Your task to perform on an android device: Show me recent news Image 0: 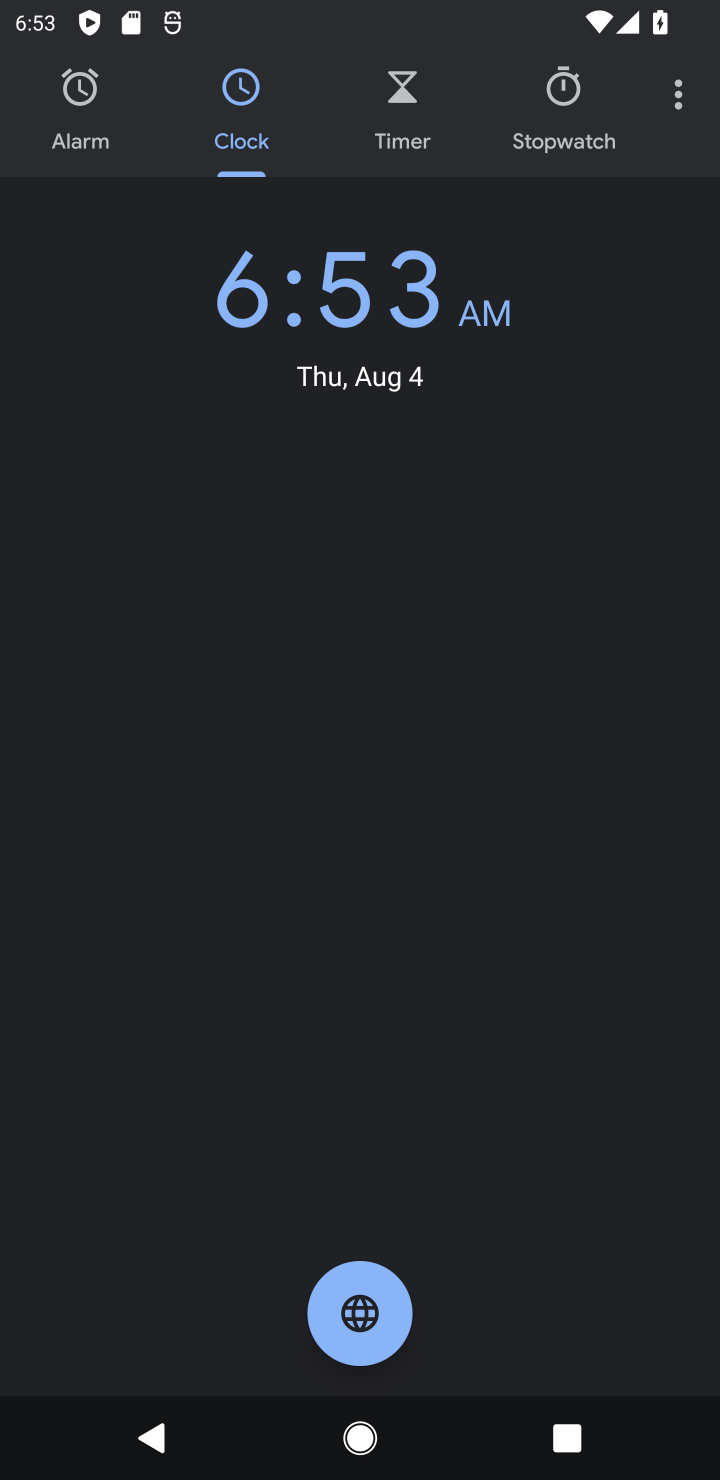
Step 0: press home button
Your task to perform on an android device: Show me recent news Image 1: 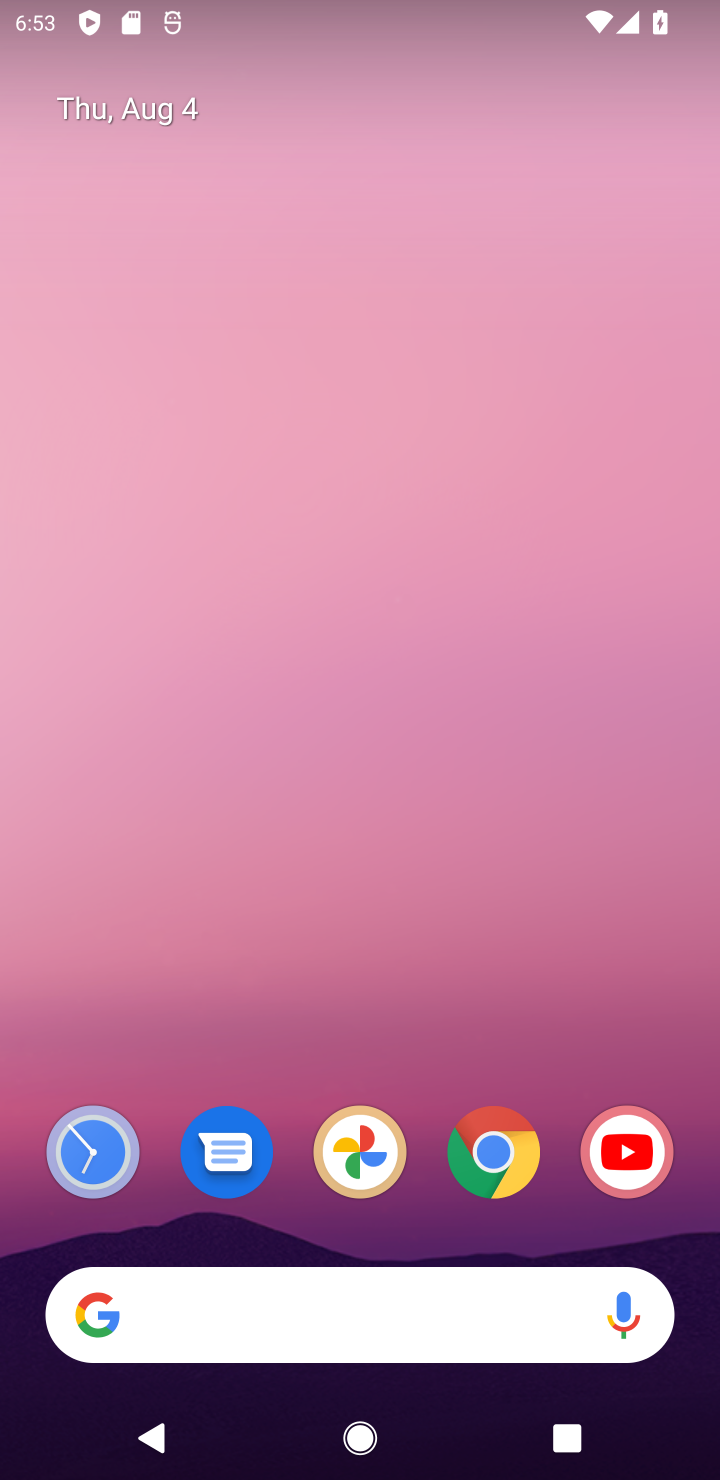
Step 1: click (184, 1304)
Your task to perform on an android device: Show me recent news Image 2: 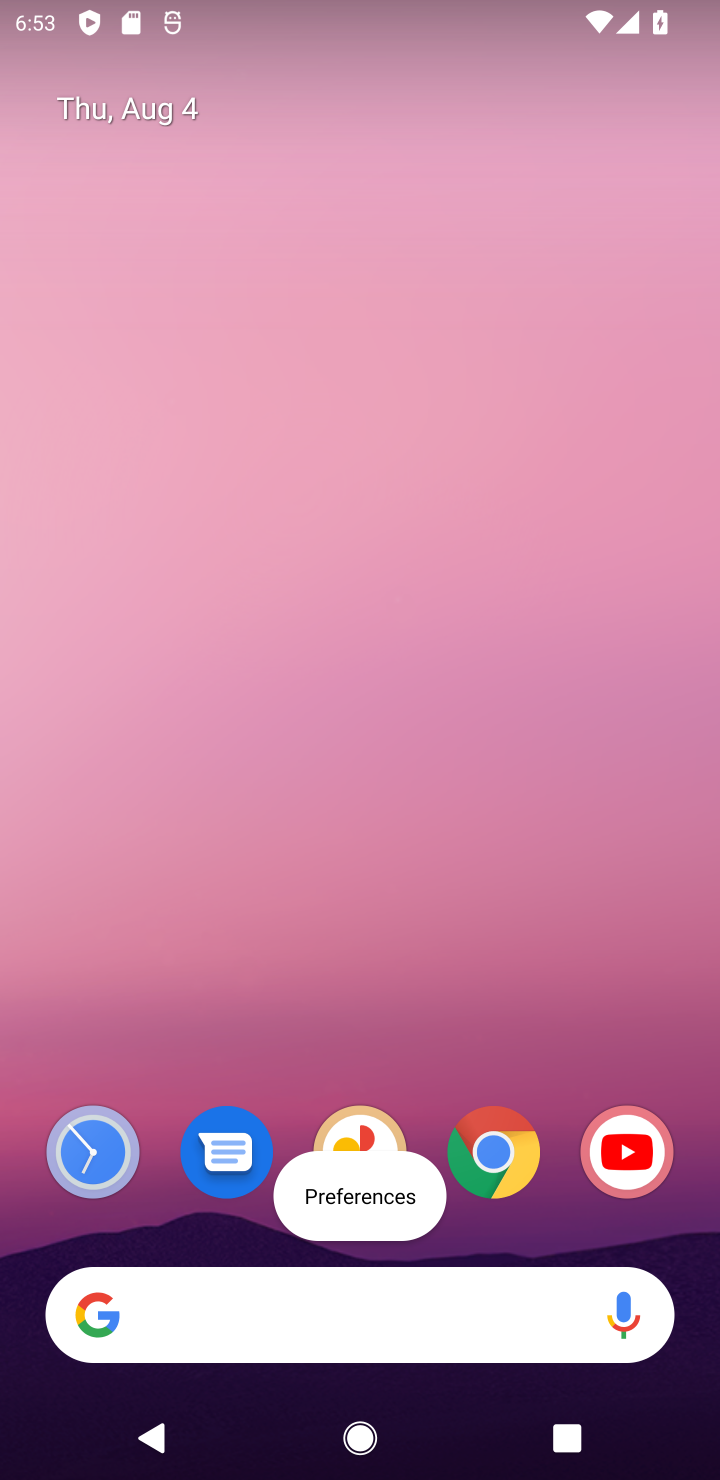
Step 2: click (431, 1324)
Your task to perform on an android device: Show me recent news Image 3: 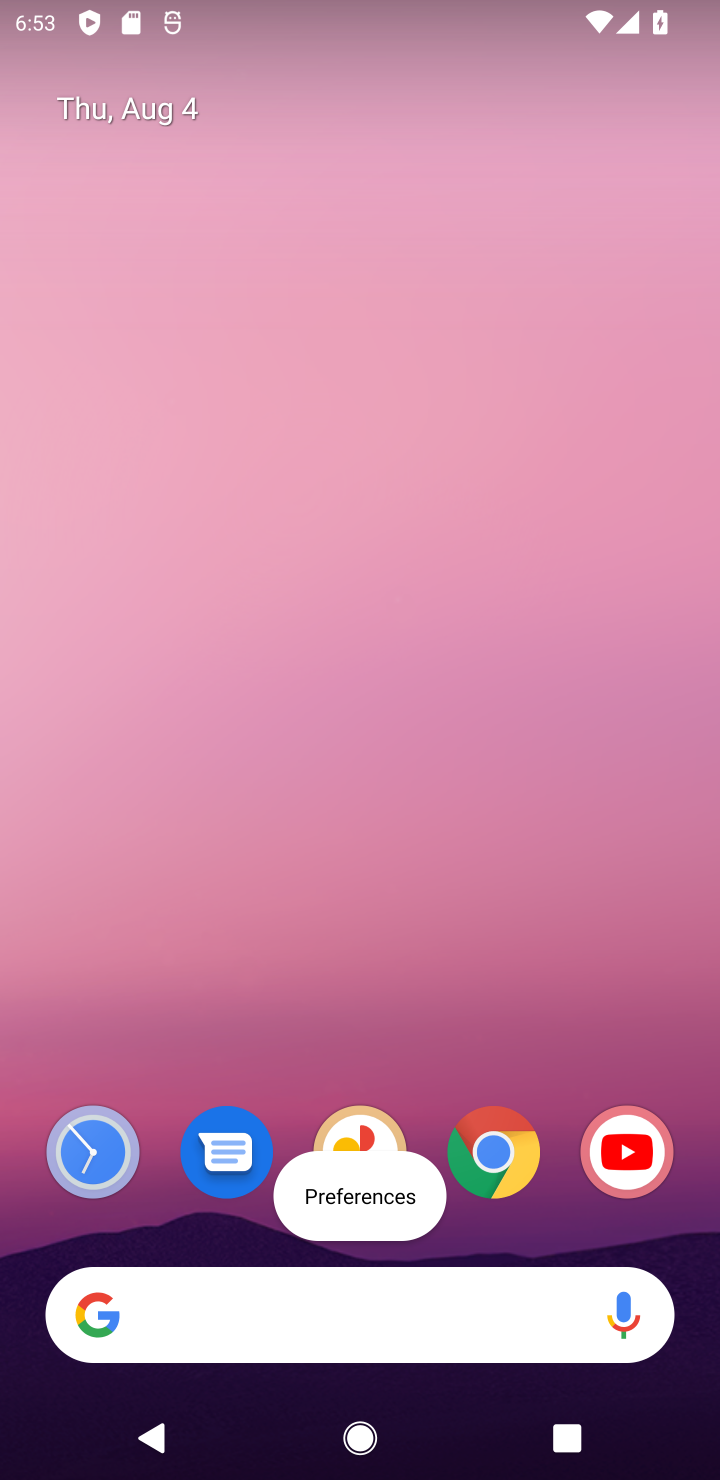
Step 3: click (222, 1306)
Your task to perform on an android device: Show me recent news Image 4: 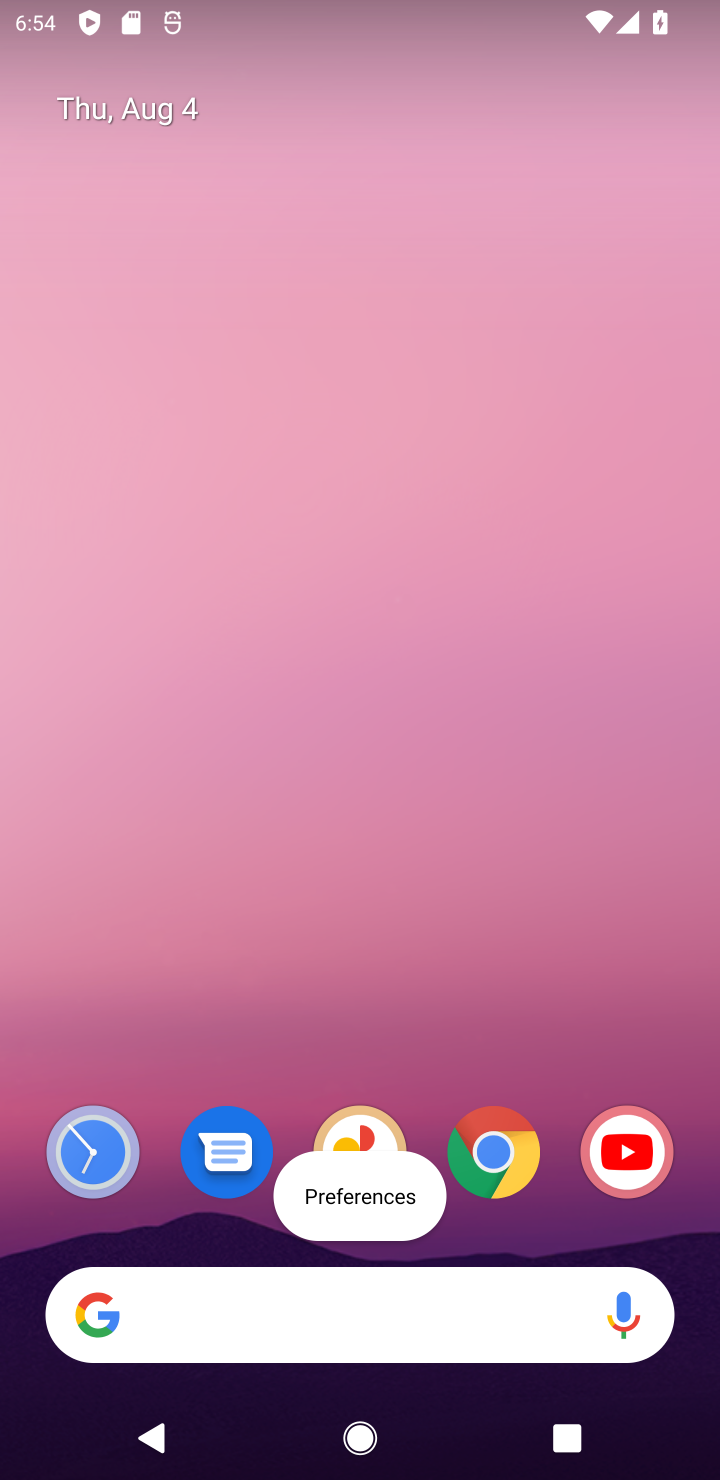
Step 4: click (419, 1290)
Your task to perform on an android device: Show me recent news Image 5: 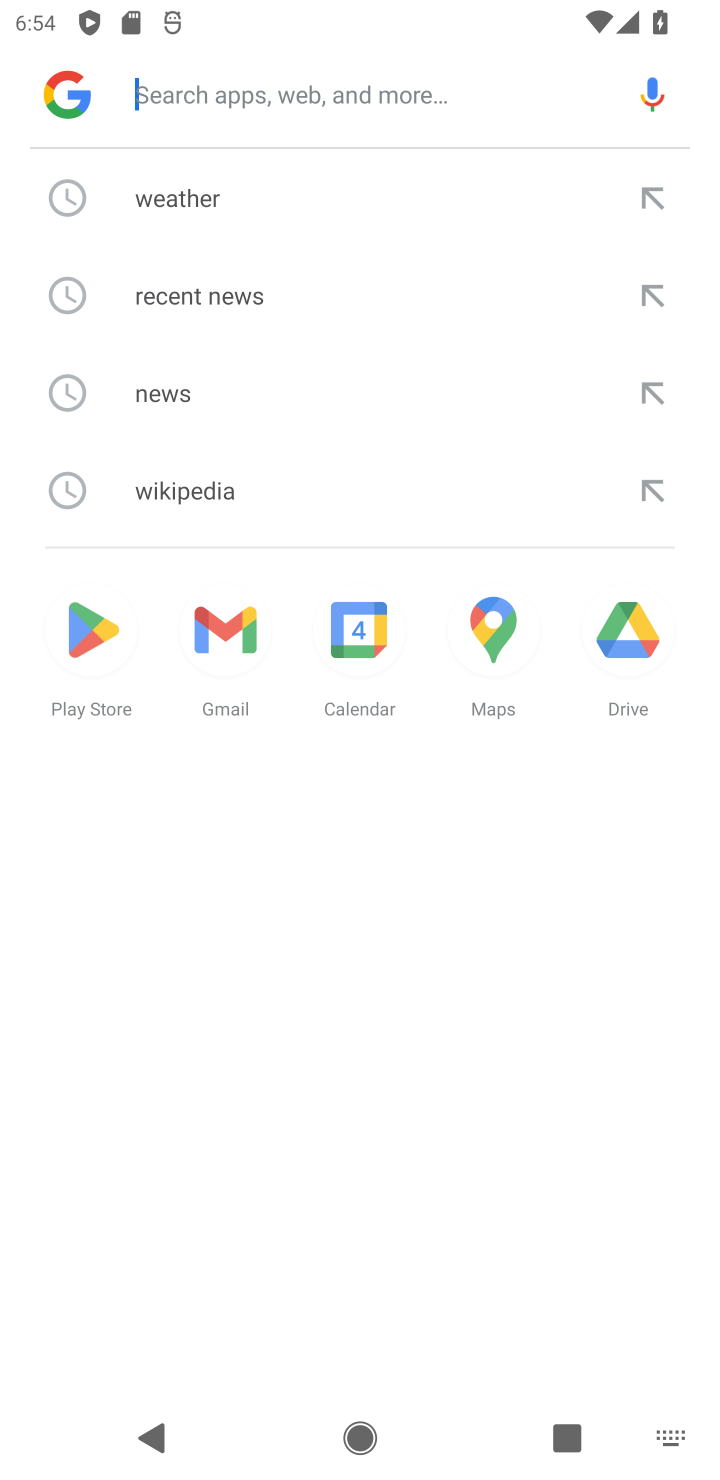
Step 5: click (204, 1306)
Your task to perform on an android device: Show me recent news Image 6: 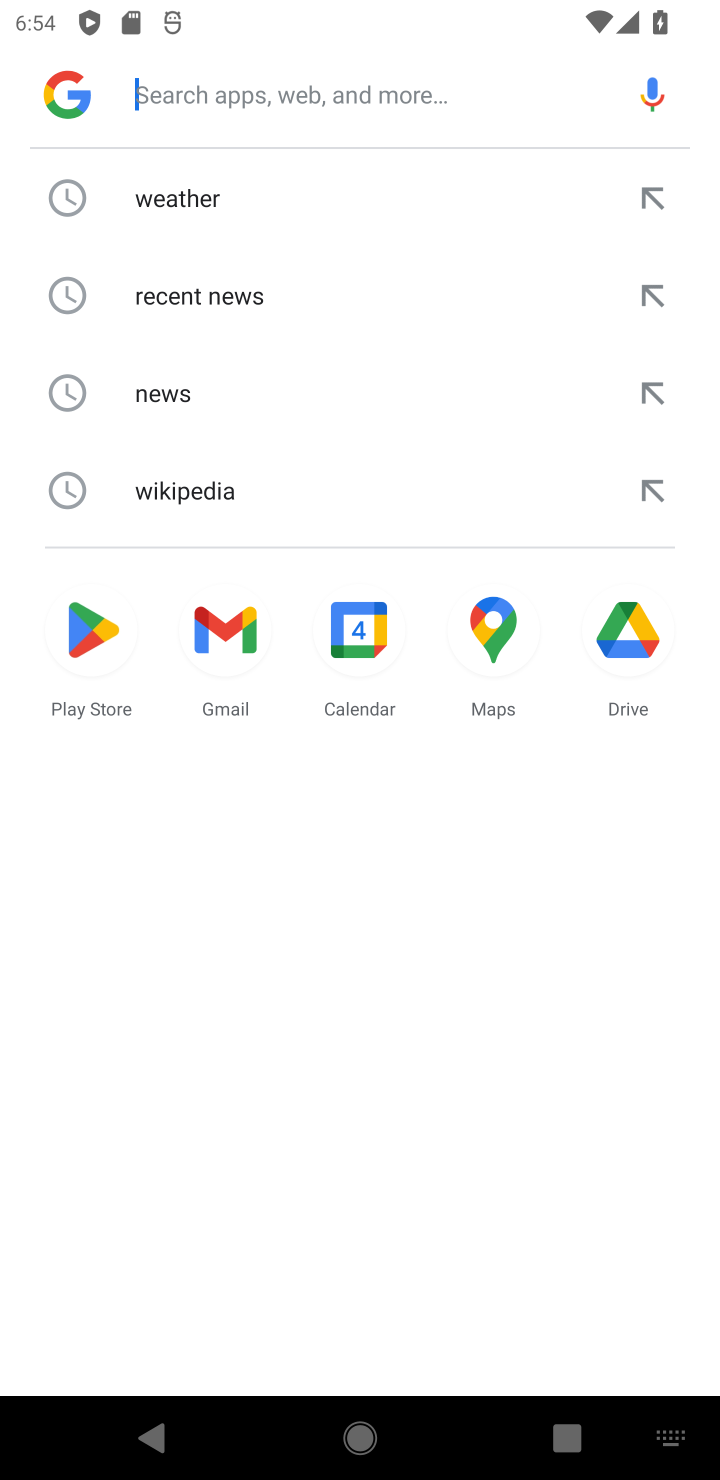
Step 6: click (185, 397)
Your task to perform on an android device: Show me recent news Image 7: 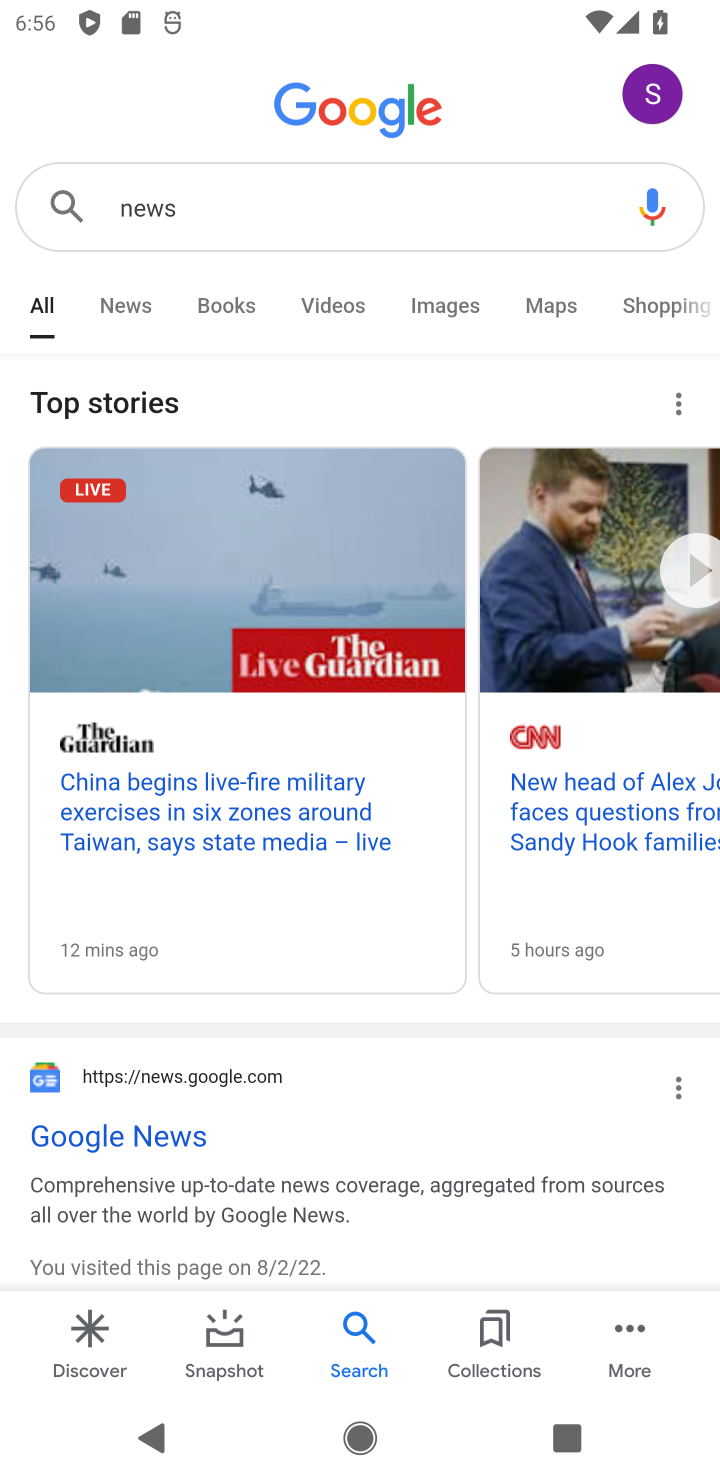
Step 7: task complete